Your task to perform on an android device: View the shopping cart on target. Search for duracell triple a on target, select the first entry, add it to the cart, then select checkout. Image 0: 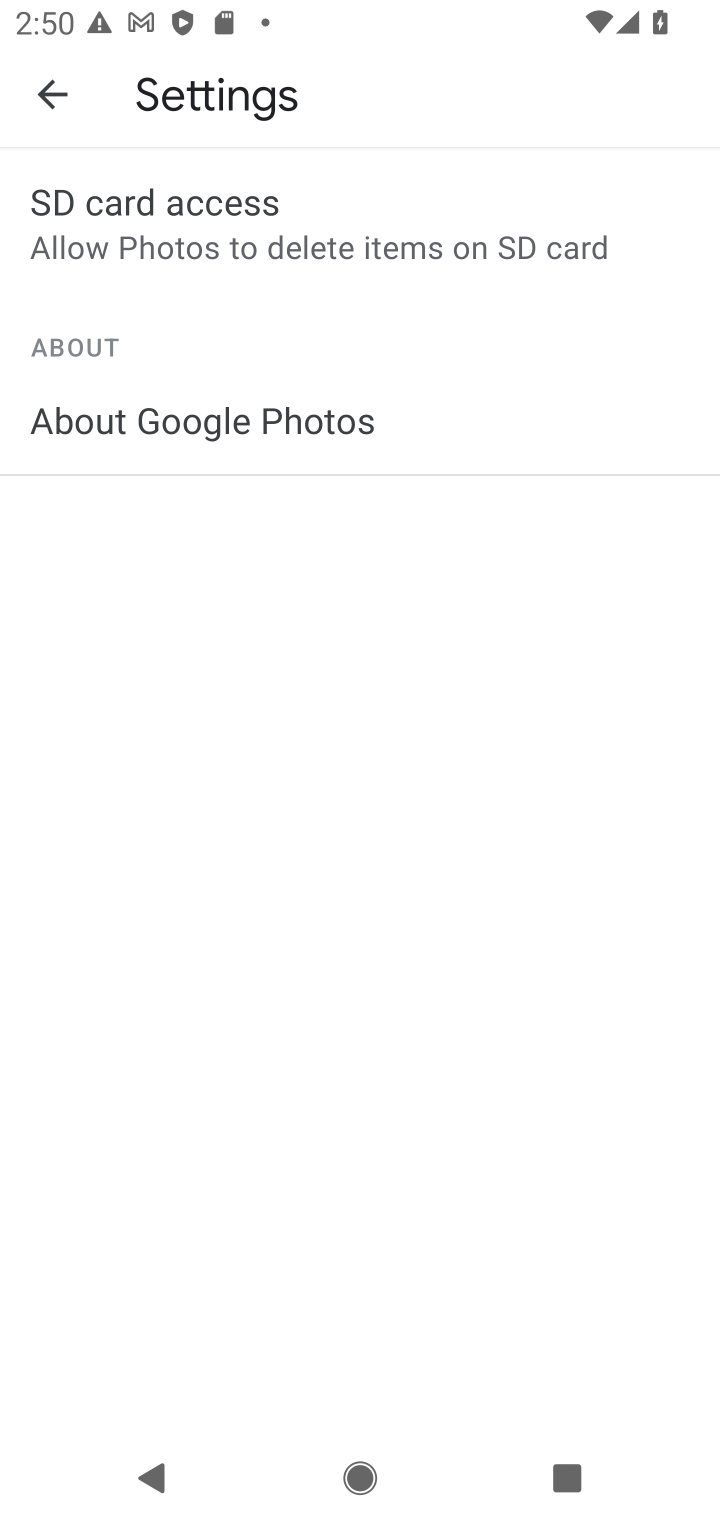
Step 0: press home button
Your task to perform on an android device: View the shopping cart on target. Search for duracell triple a on target, select the first entry, add it to the cart, then select checkout. Image 1: 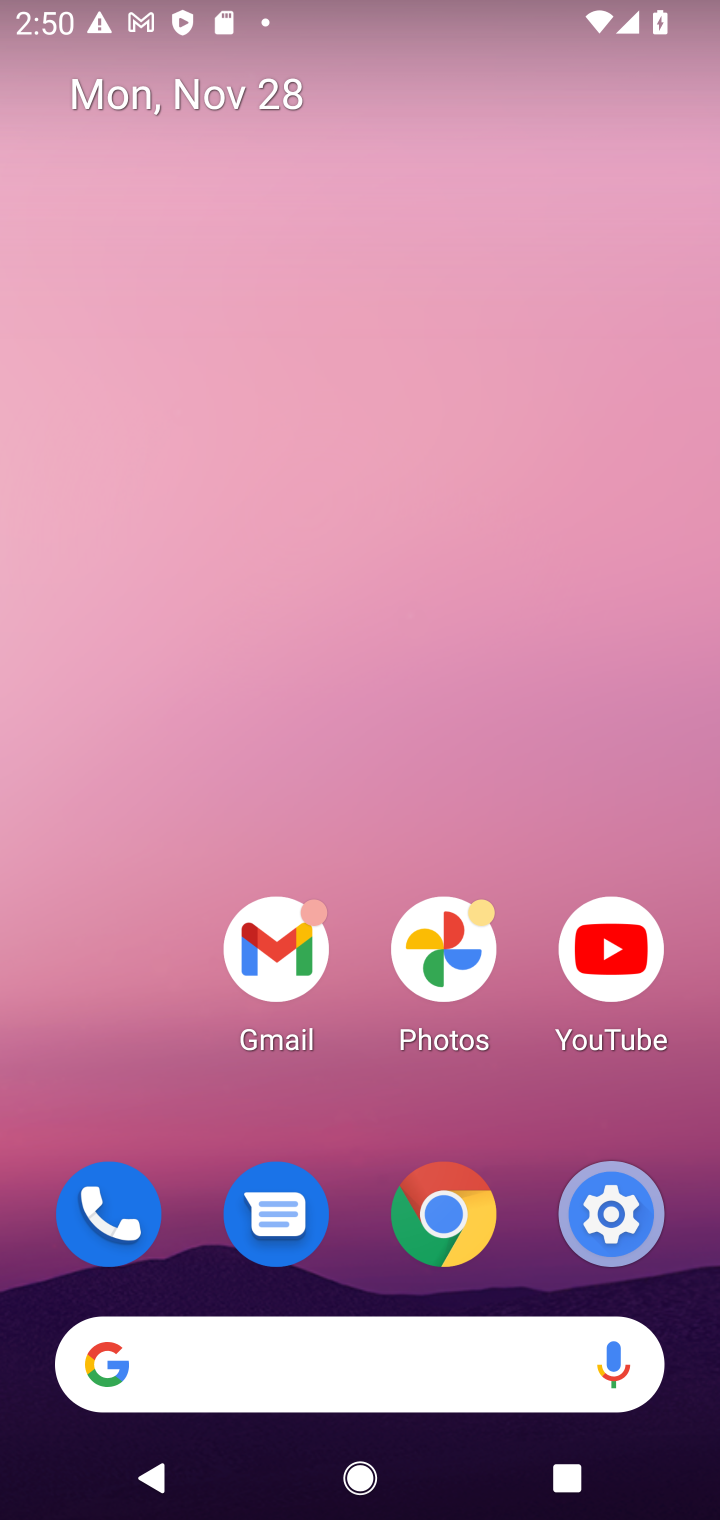
Step 1: click (333, 1368)
Your task to perform on an android device: View the shopping cart on target. Search for duracell triple a on target, select the first entry, add it to the cart, then select checkout. Image 2: 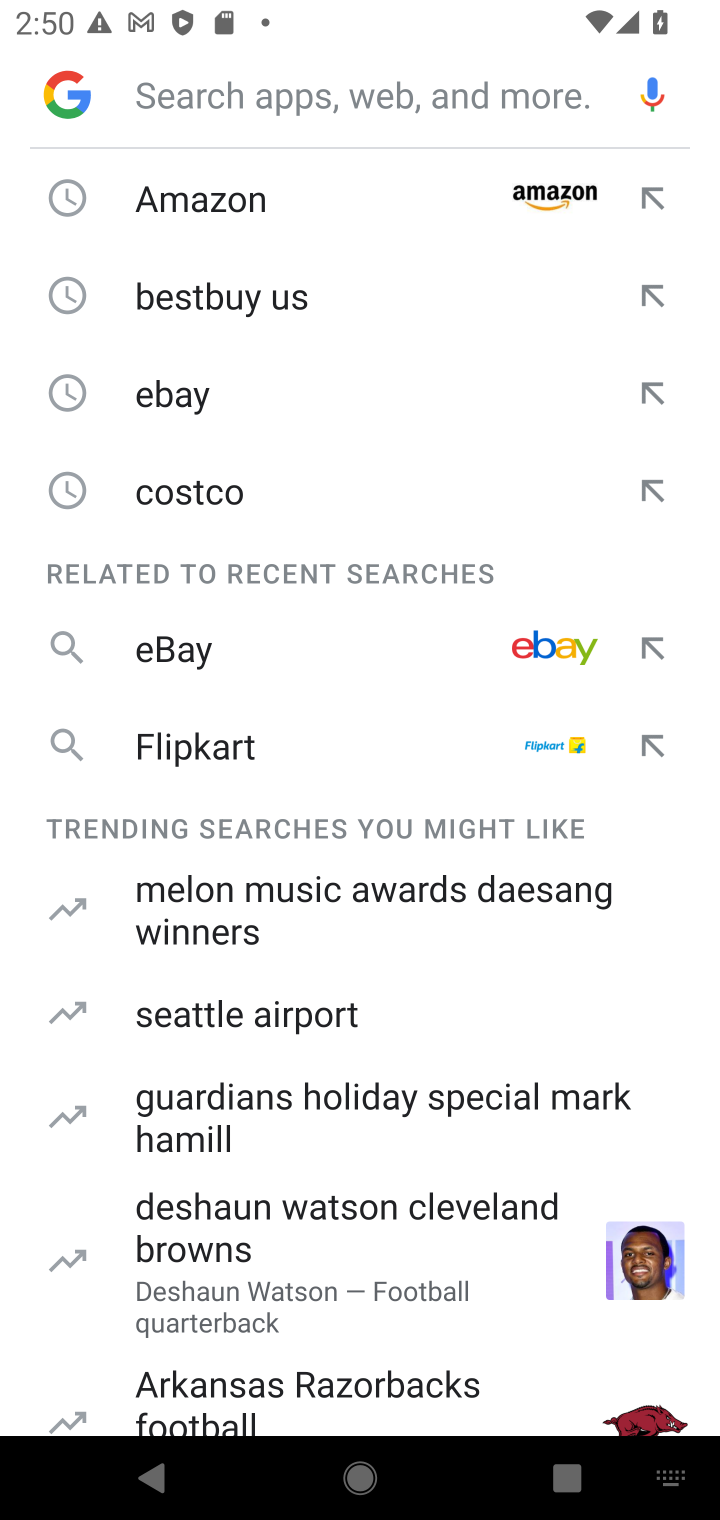
Step 2: type "target"
Your task to perform on an android device: View the shopping cart on target. Search for duracell triple a on target, select the first entry, add it to the cart, then select checkout. Image 3: 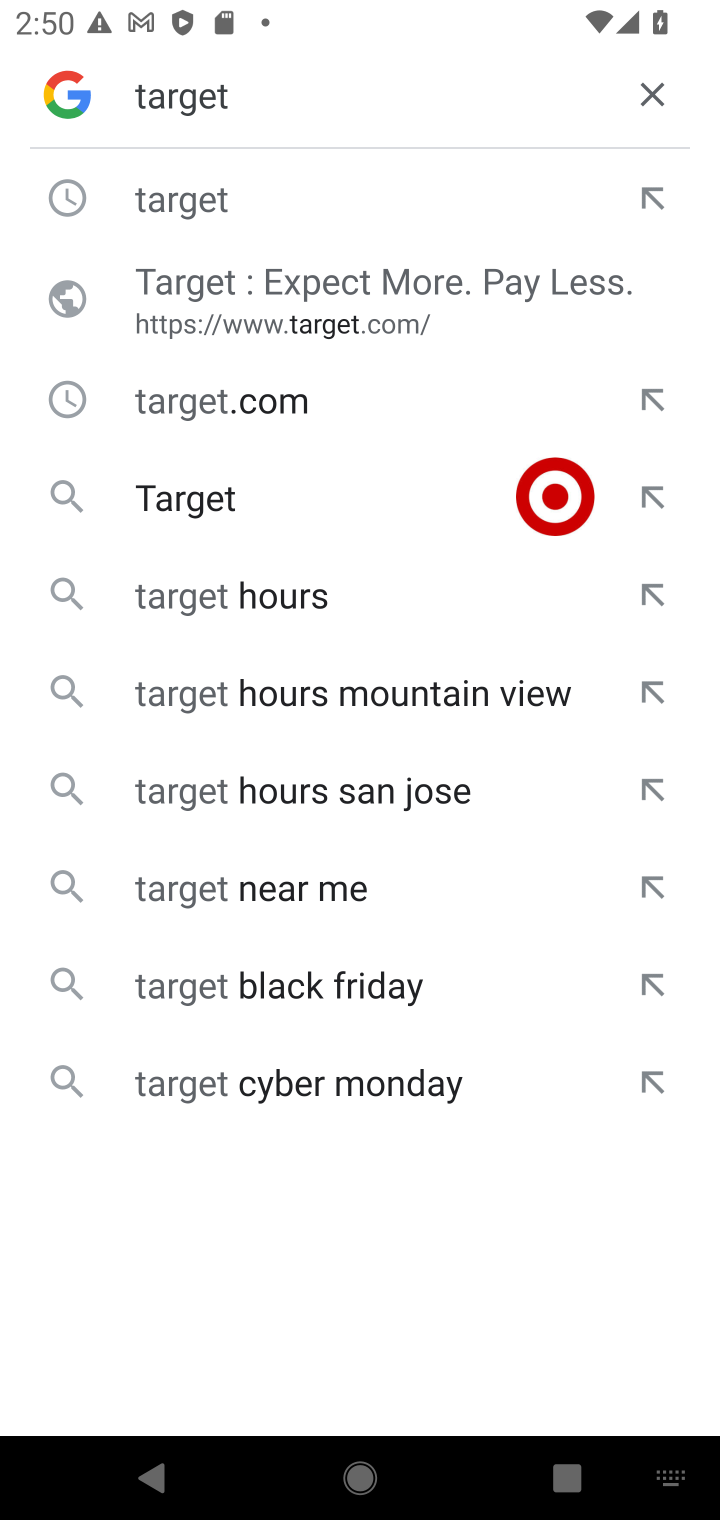
Step 3: click (183, 213)
Your task to perform on an android device: View the shopping cart on target. Search for duracell triple a on target, select the first entry, add it to the cart, then select checkout. Image 4: 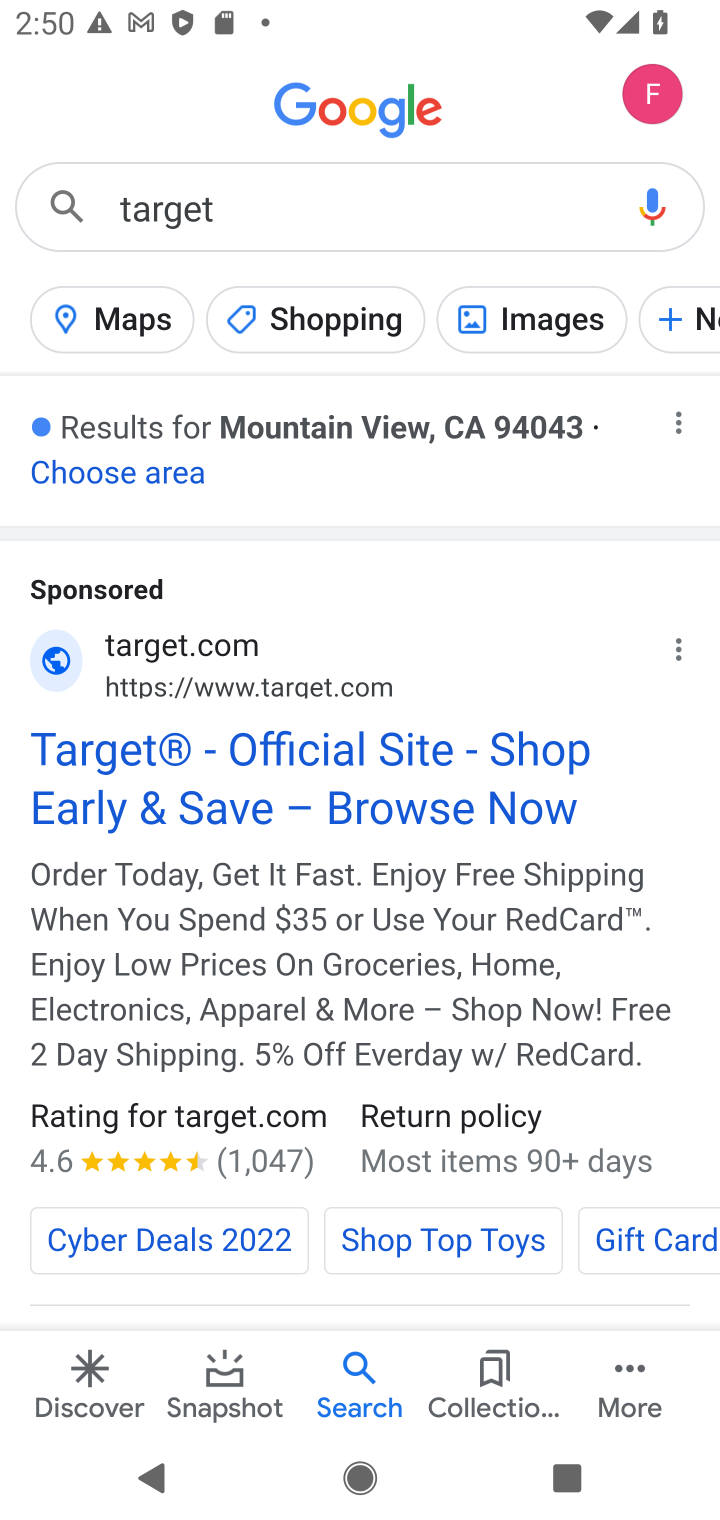
Step 4: click (287, 797)
Your task to perform on an android device: View the shopping cart on target. Search for duracell triple a on target, select the first entry, add it to the cart, then select checkout. Image 5: 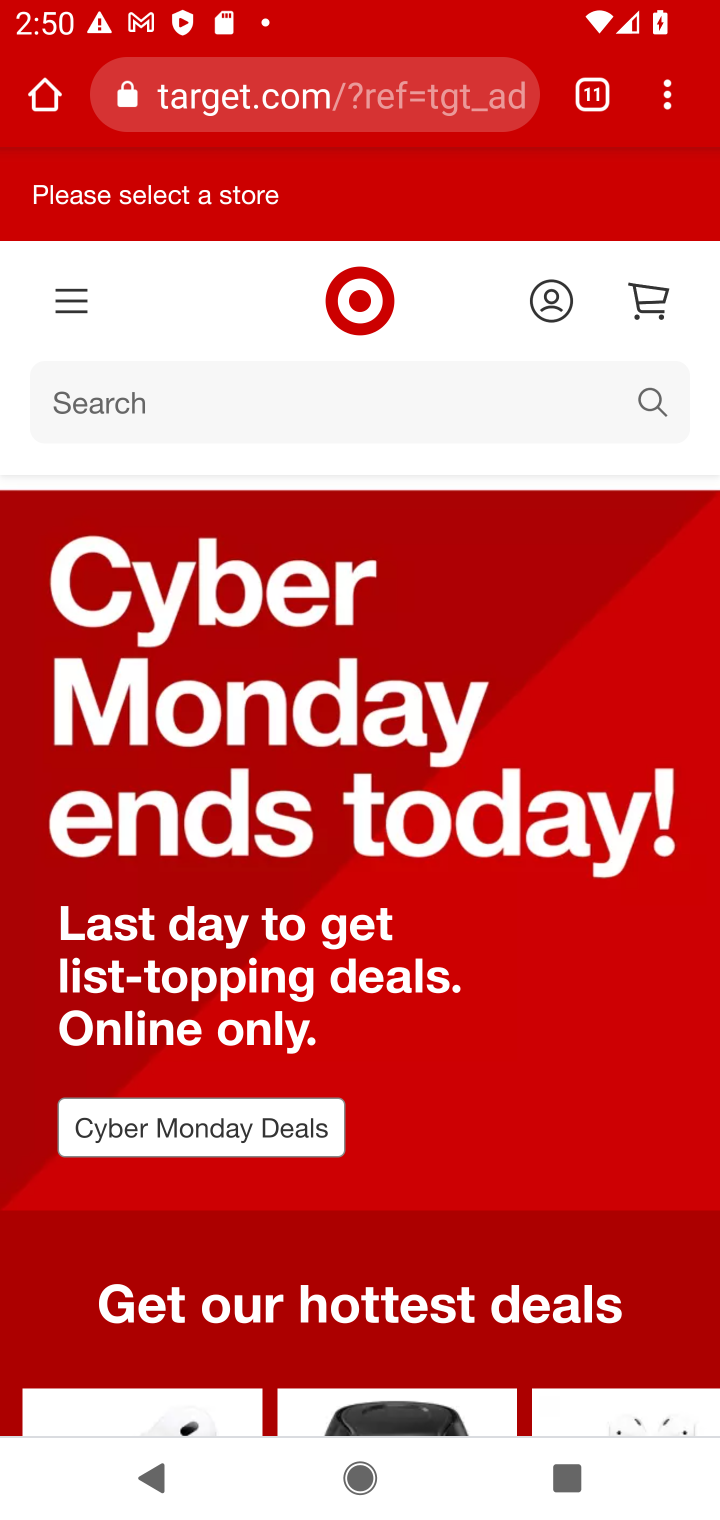
Step 5: task complete